Your task to perform on an android device: Show me productivity apps on the Play Store Image 0: 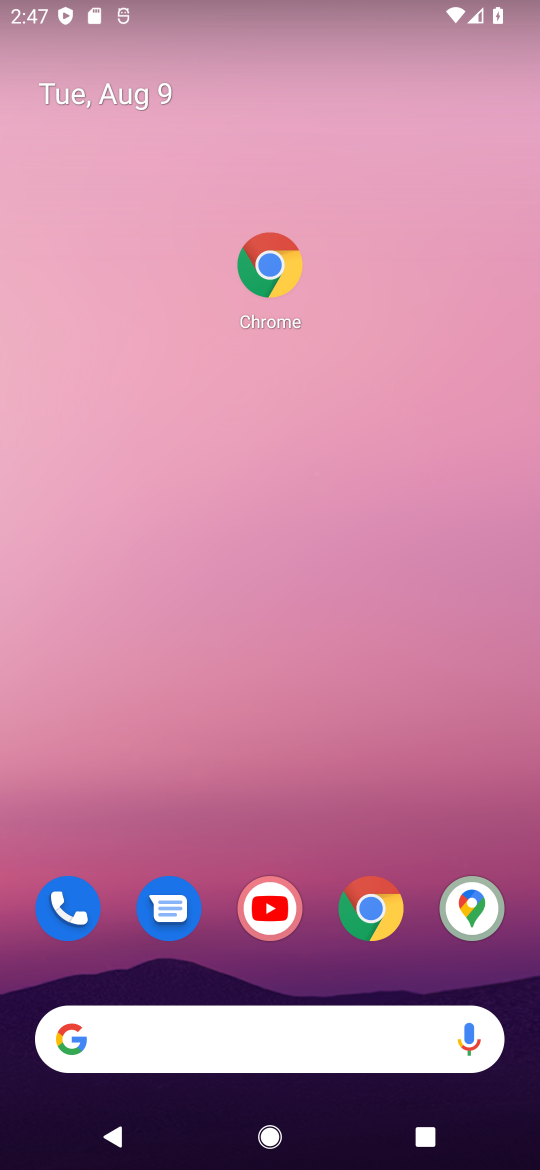
Step 0: click (298, 251)
Your task to perform on an android device: Show me productivity apps on the Play Store Image 1: 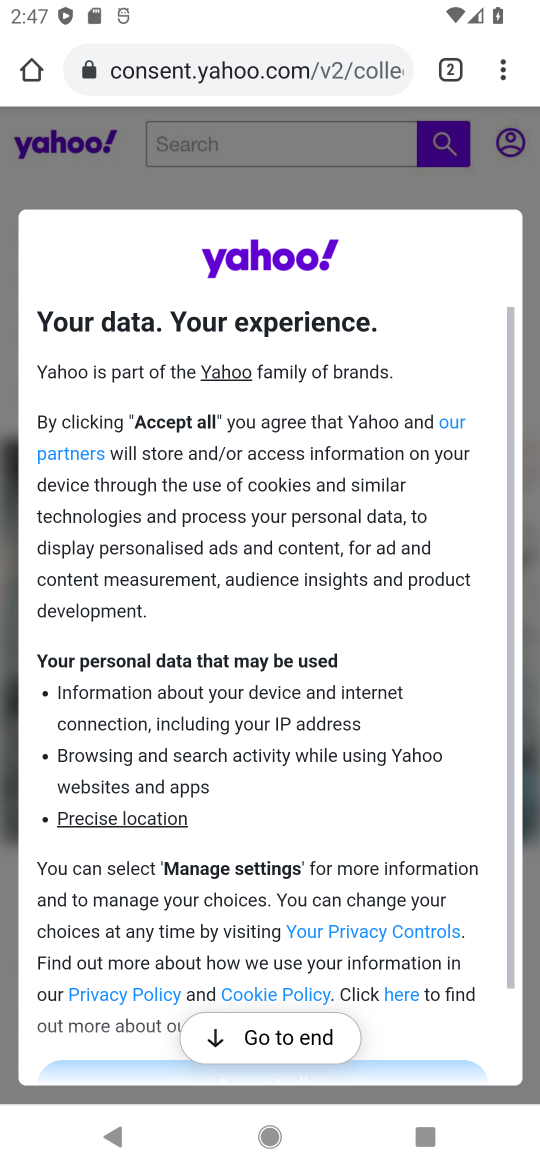
Step 1: press back button
Your task to perform on an android device: Show me productivity apps on the Play Store Image 2: 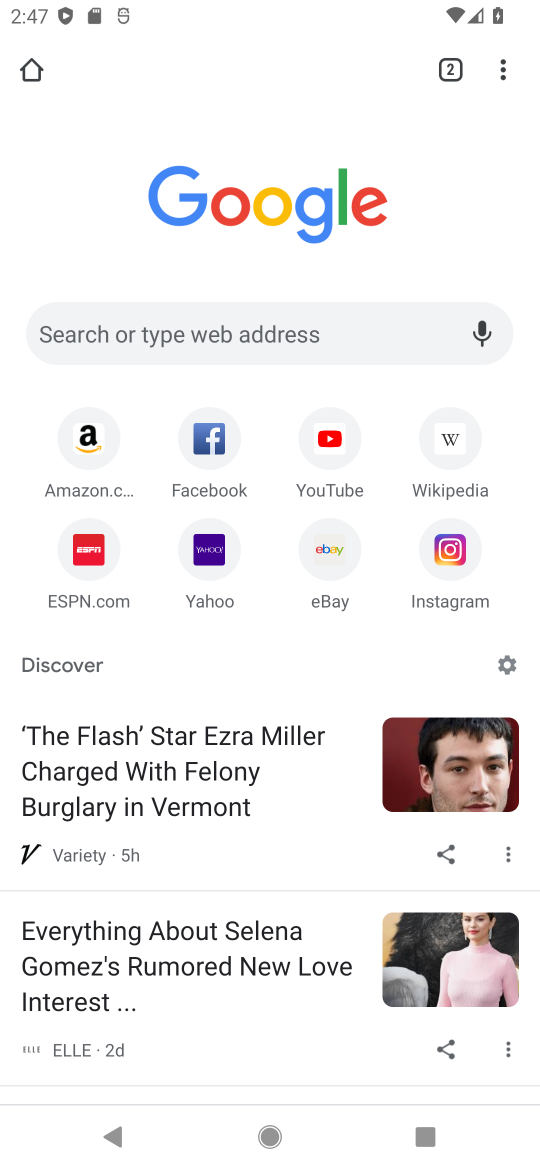
Step 2: press home button
Your task to perform on an android device: Show me productivity apps on the Play Store Image 3: 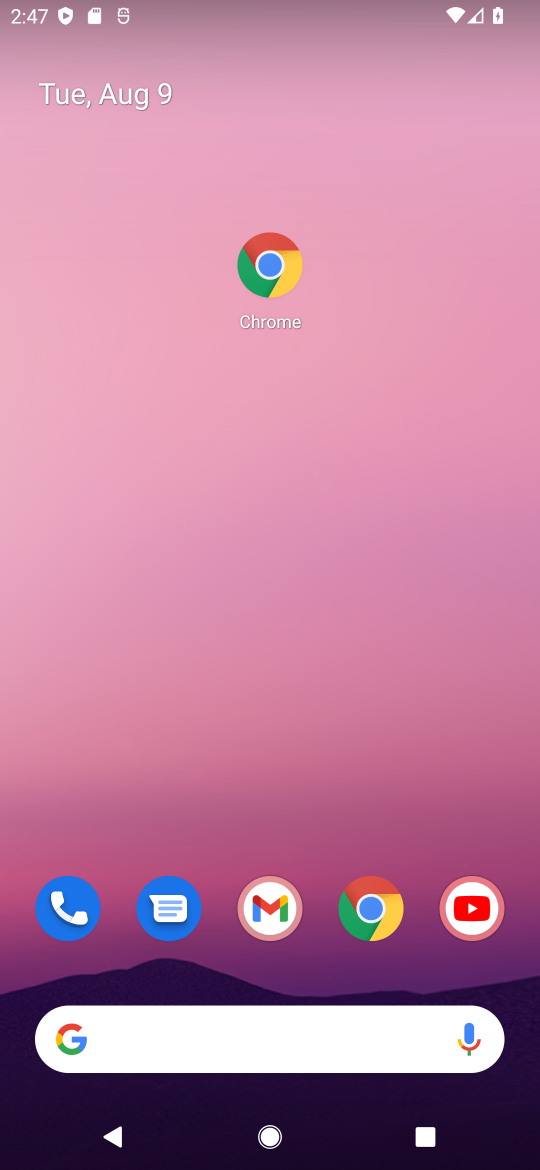
Step 3: drag from (344, 1021) to (250, 67)
Your task to perform on an android device: Show me productivity apps on the Play Store Image 4: 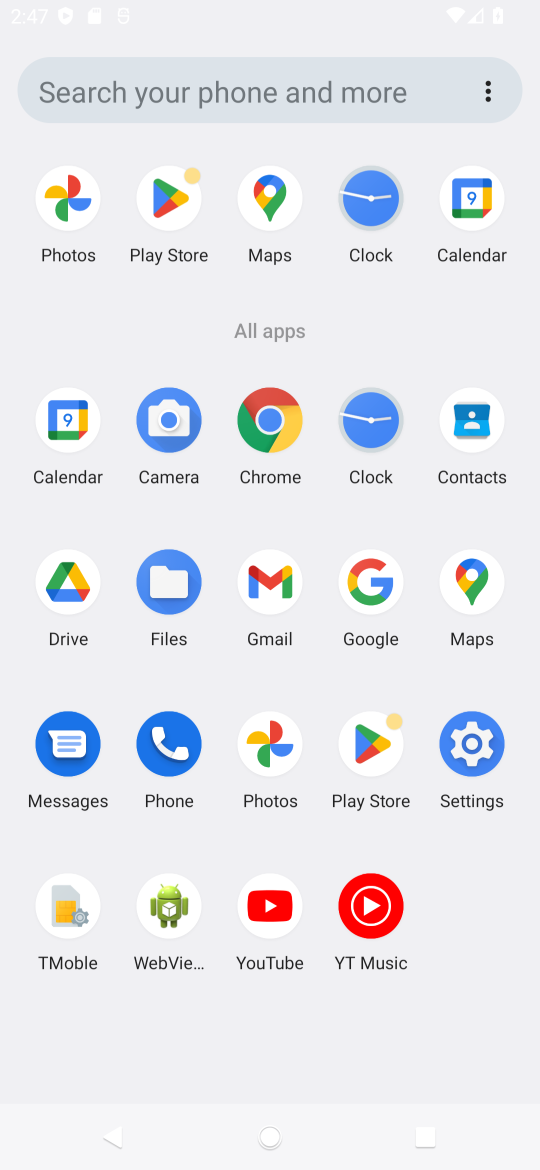
Step 4: drag from (243, 513) to (221, 200)
Your task to perform on an android device: Show me productivity apps on the Play Store Image 5: 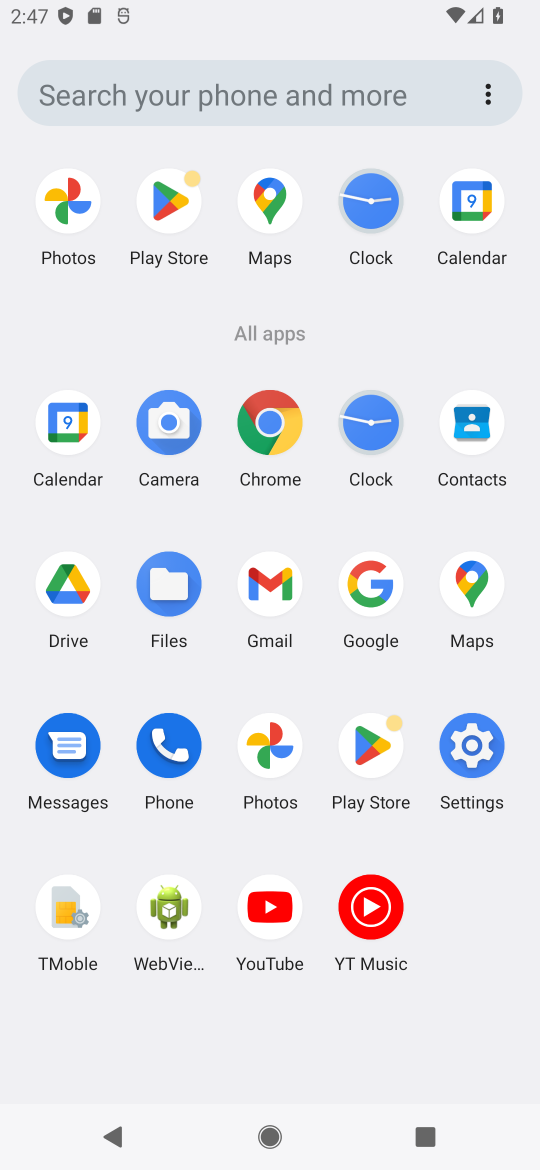
Step 5: click (371, 750)
Your task to perform on an android device: Show me productivity apps on the Play Store Image 6: 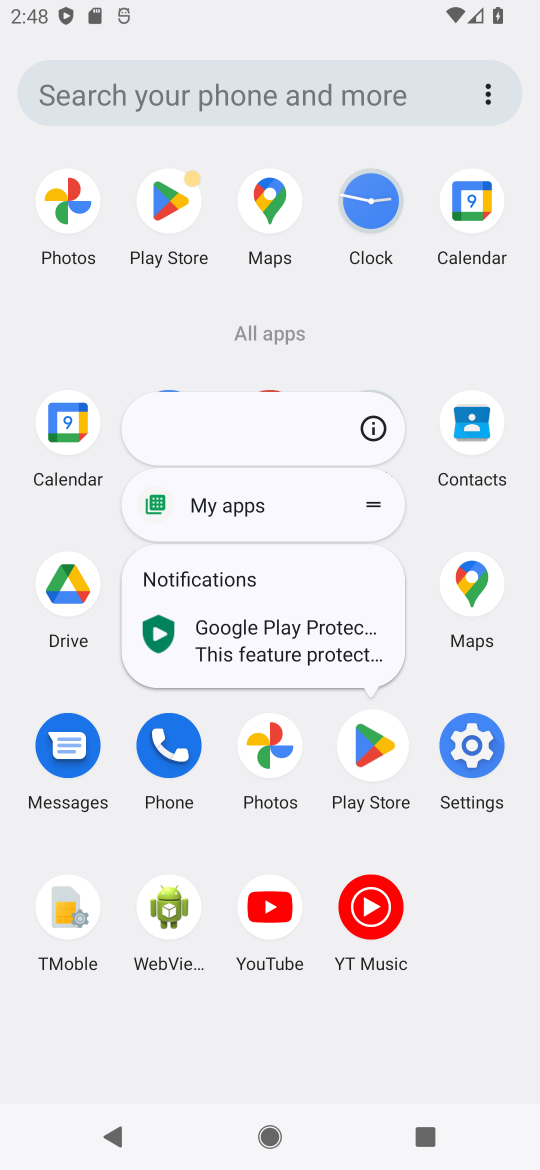
Step 6: click (373, 750)
Your task to perform on an android device: Show me productivity apps on the Play Store Image 7: 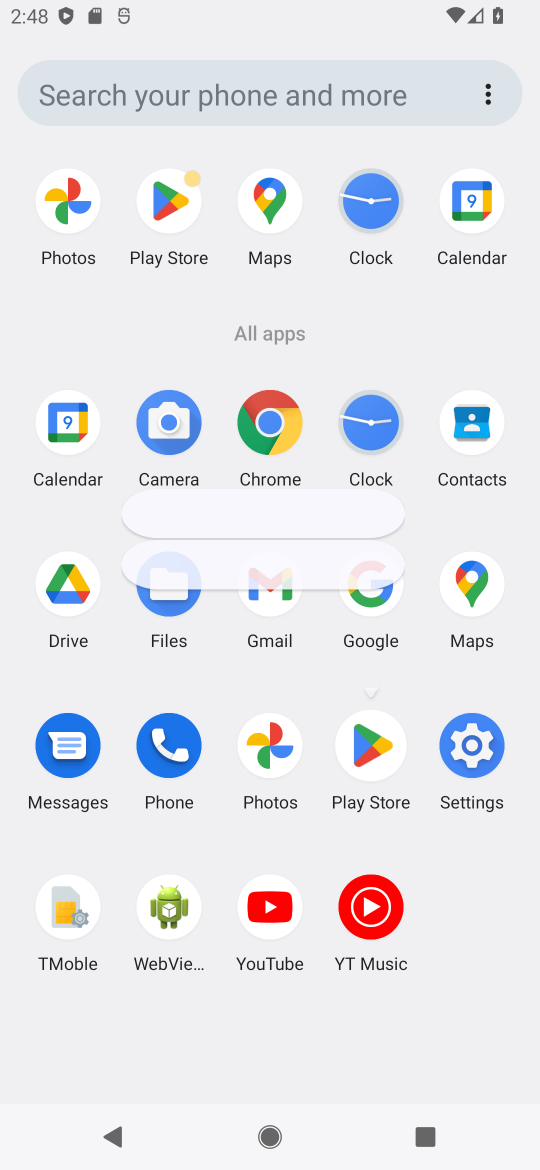
Step 7: click (373, 750)
Your task to perform on an android device: Show me productivity apps on the Play Store Image 8: 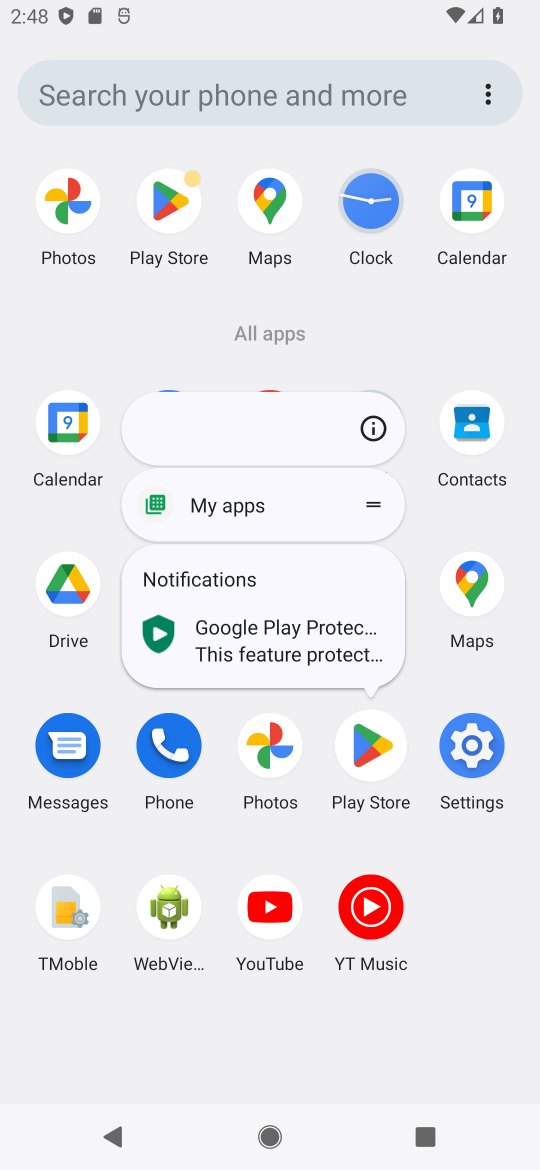
Step 8: click (373, 750)
Your task to perform on an android device: Show me productivity apps on the Play Store Image 9: 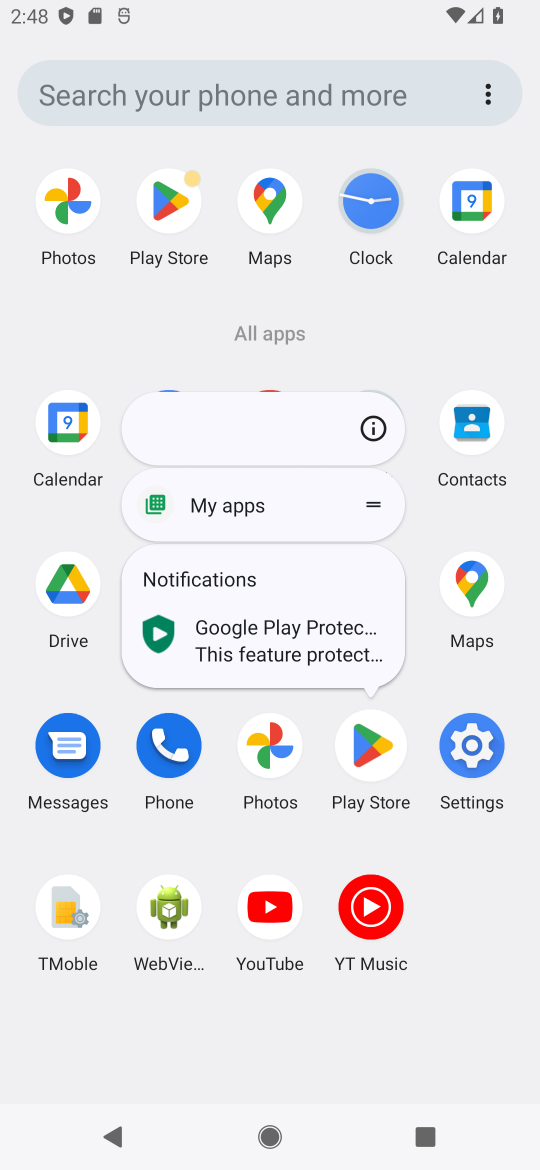
Step 9: click (373, 750)
Your task to perform on an android device: Show me productivity apps on the Play Store Image 10: 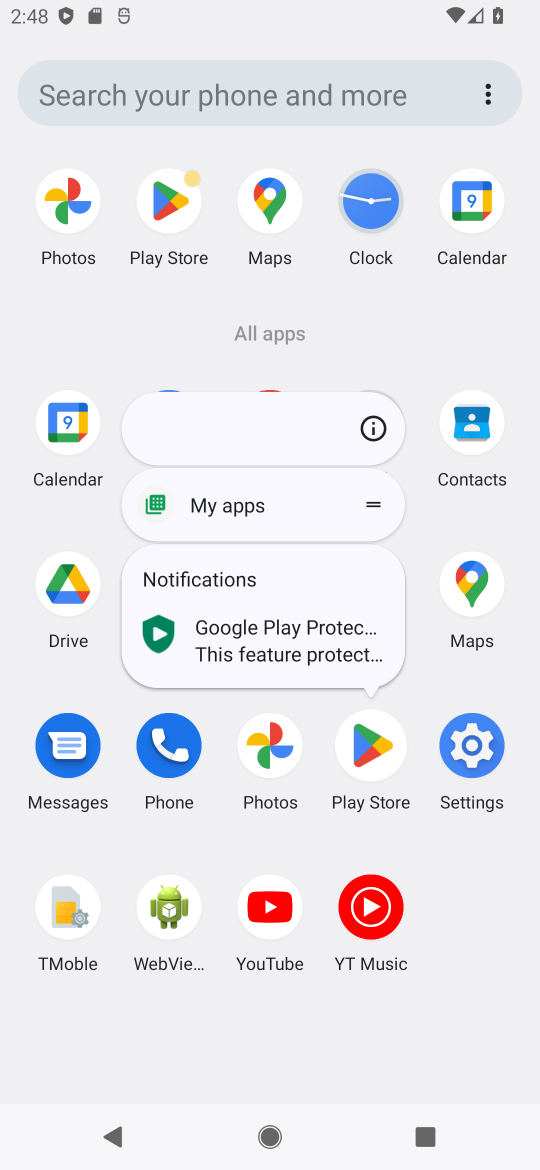
Step 10: click (373, 750)
Your task to perform on an android device: Show me productivity apps on the Play Store Image 11: 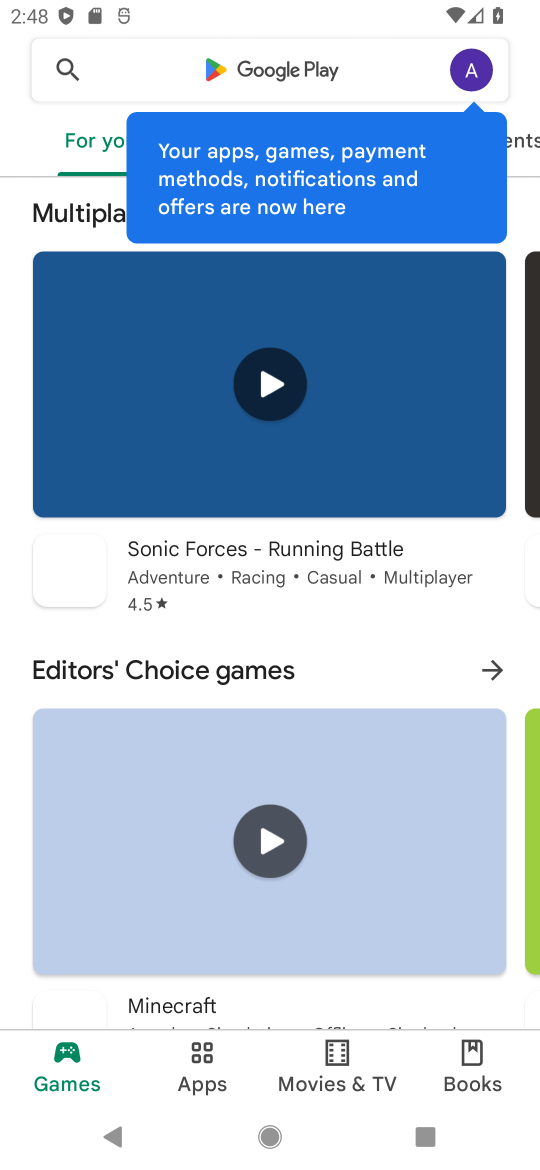
Step 11: click (314, 67)
Your task to perform on an android device: Show me productivity apps on the Play Store Image 12: 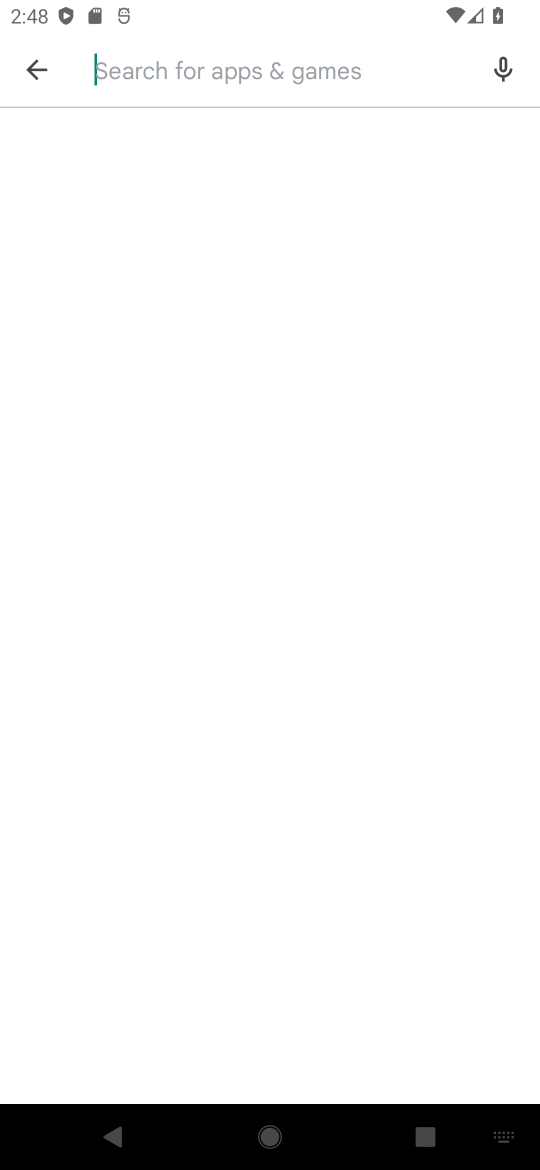
Step 12: type "productivity apps"
Your task to perform on an android device: Show me productivity apps on the Play Store Image 13: 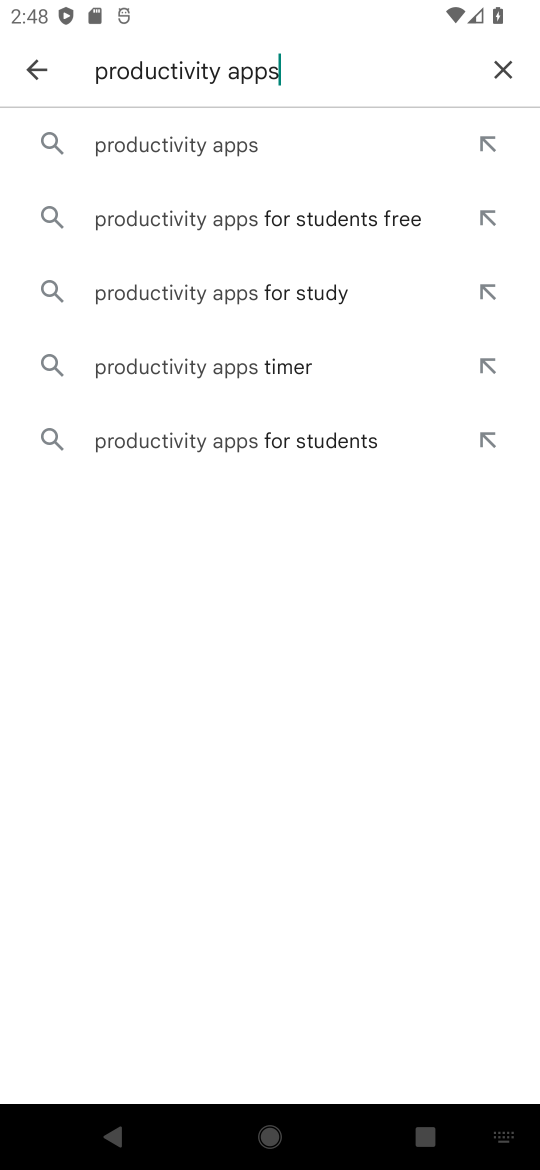
Step 13: click (152, 145)
Your task to perform on an android device: Show me productivity apps on the Play Store Image 14: 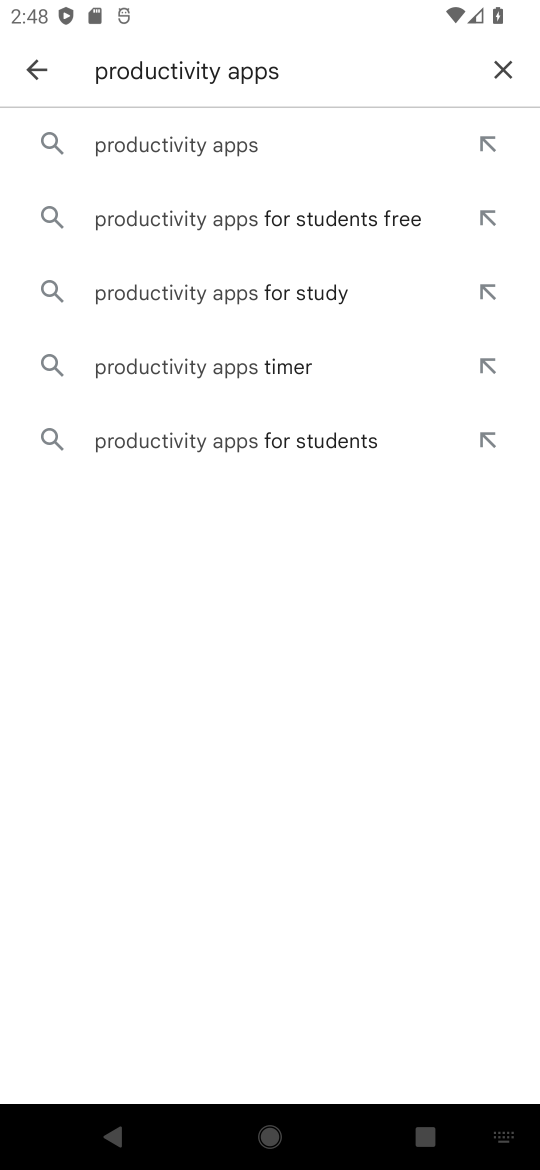
Step 14: click (152, 145)
Your task to perform on an android device: Show me productivity apps on the Play Store Image 15: 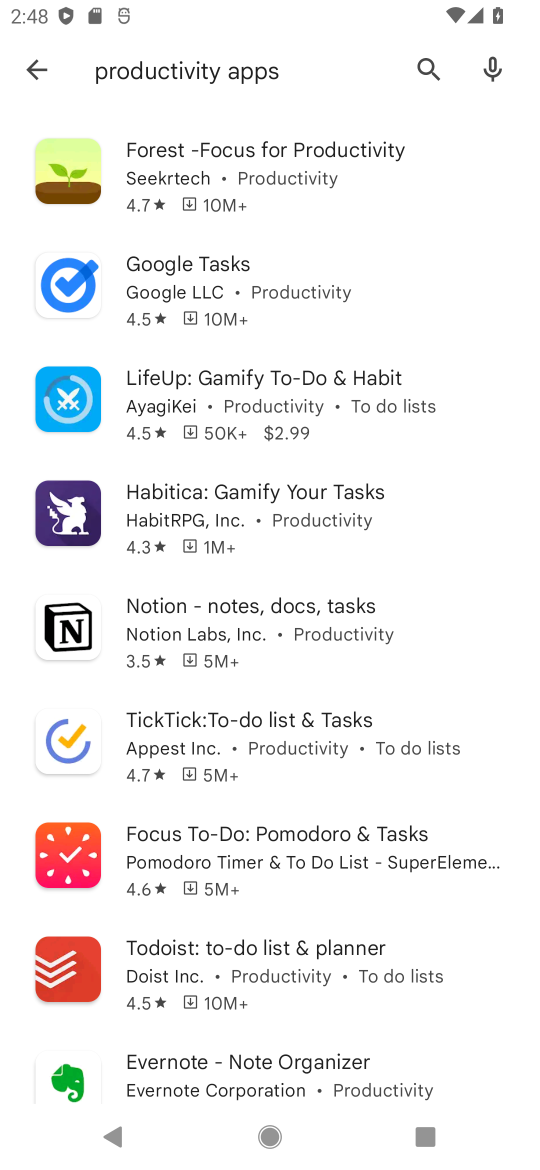
Step 15: task complete